Your task to perform on an android device: choose inbox layout in the gmail app Image 0: 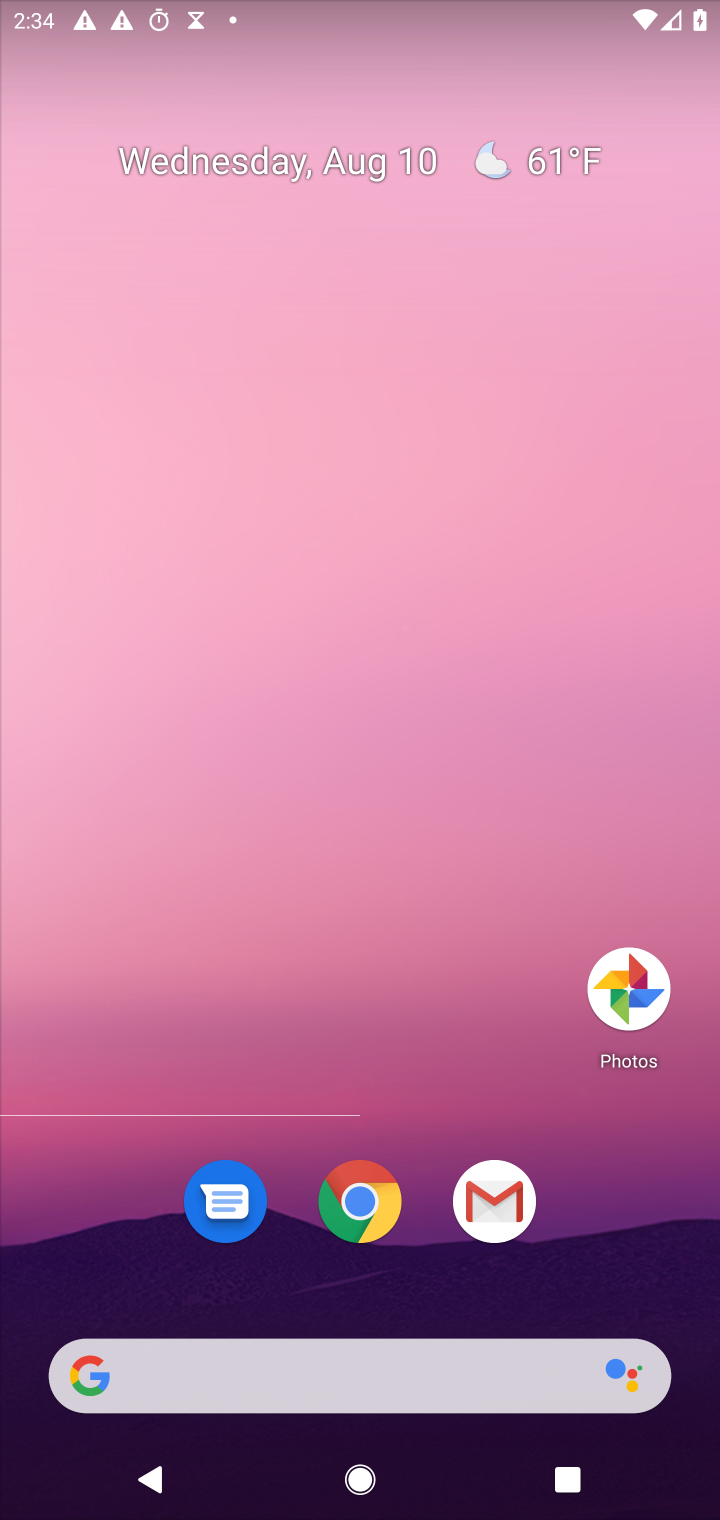
Step 0: press home button
Your task to perform on an android device: choose inbox layout in the gmail app Image 1: 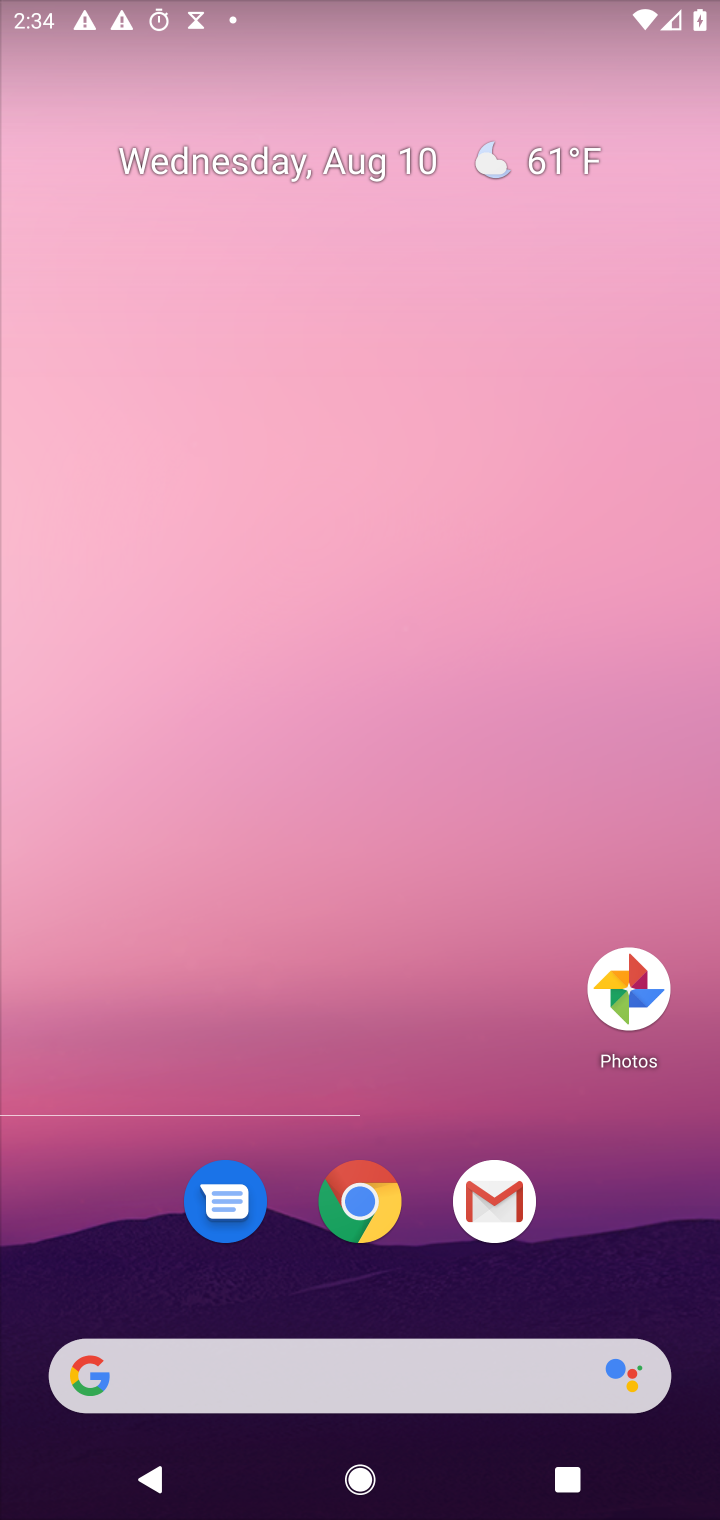
Step 1: click (501, 1199)
Your task to perform on an android device: choose inbox layout in the gmail app Image 2: 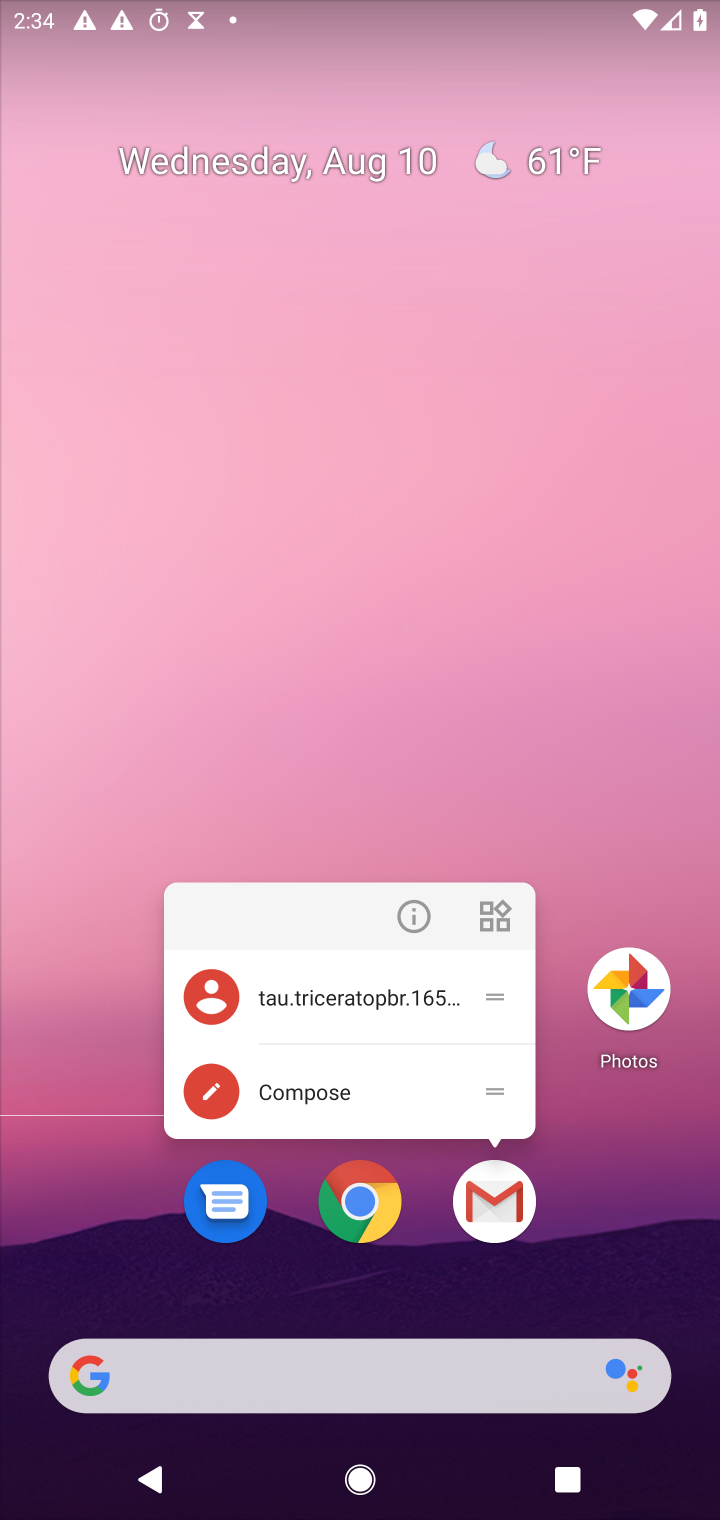
Step 2: click (501, 1199)
Your task to perform on an android device: choose inbox layout in the gmail app Image 3: 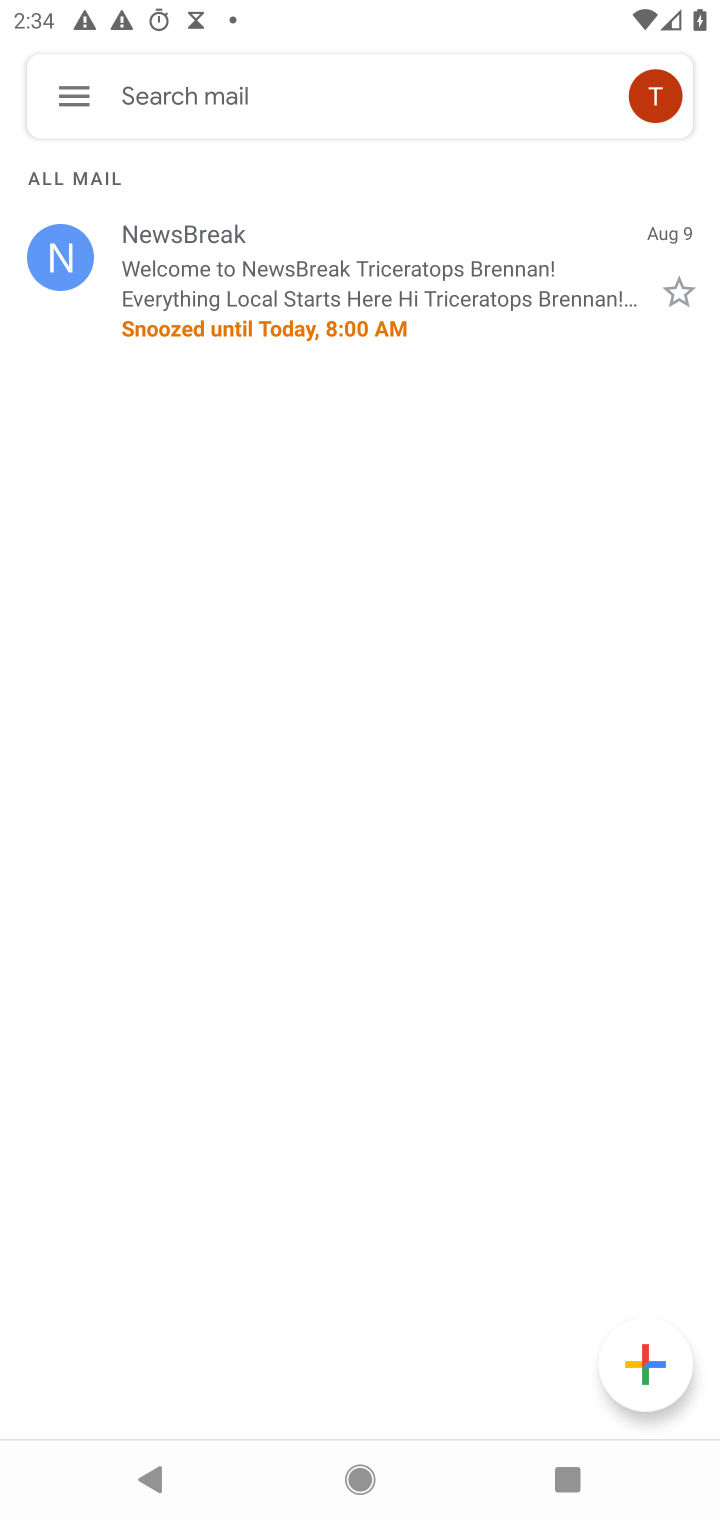
Step 3: click (77, 102)
Your task to perform on an android device: choose inbox layout in the gmail app Image 4: 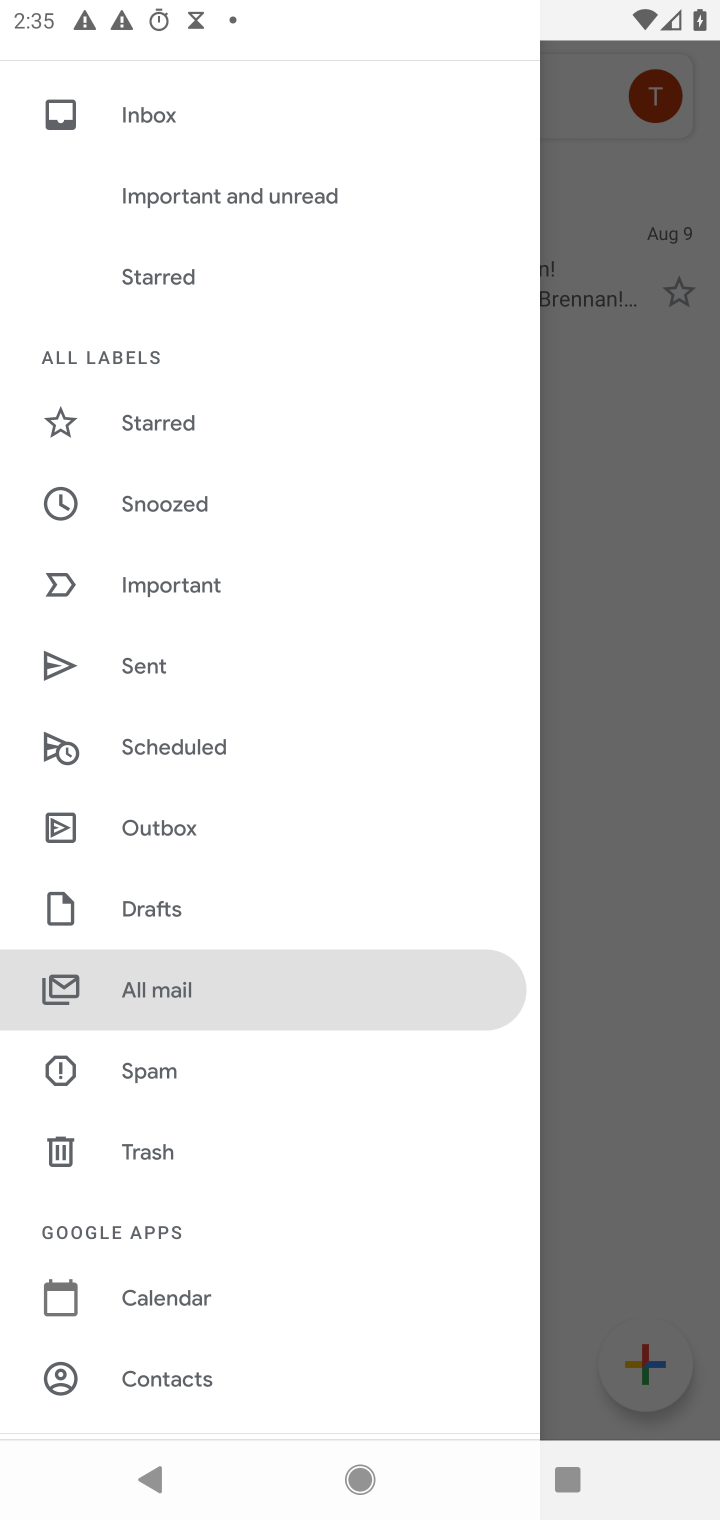
Step 4: drag from (384, 1257) to (277, 482)
Your task to perform on an android device: choose inbox layout in the gmail app Image 5: 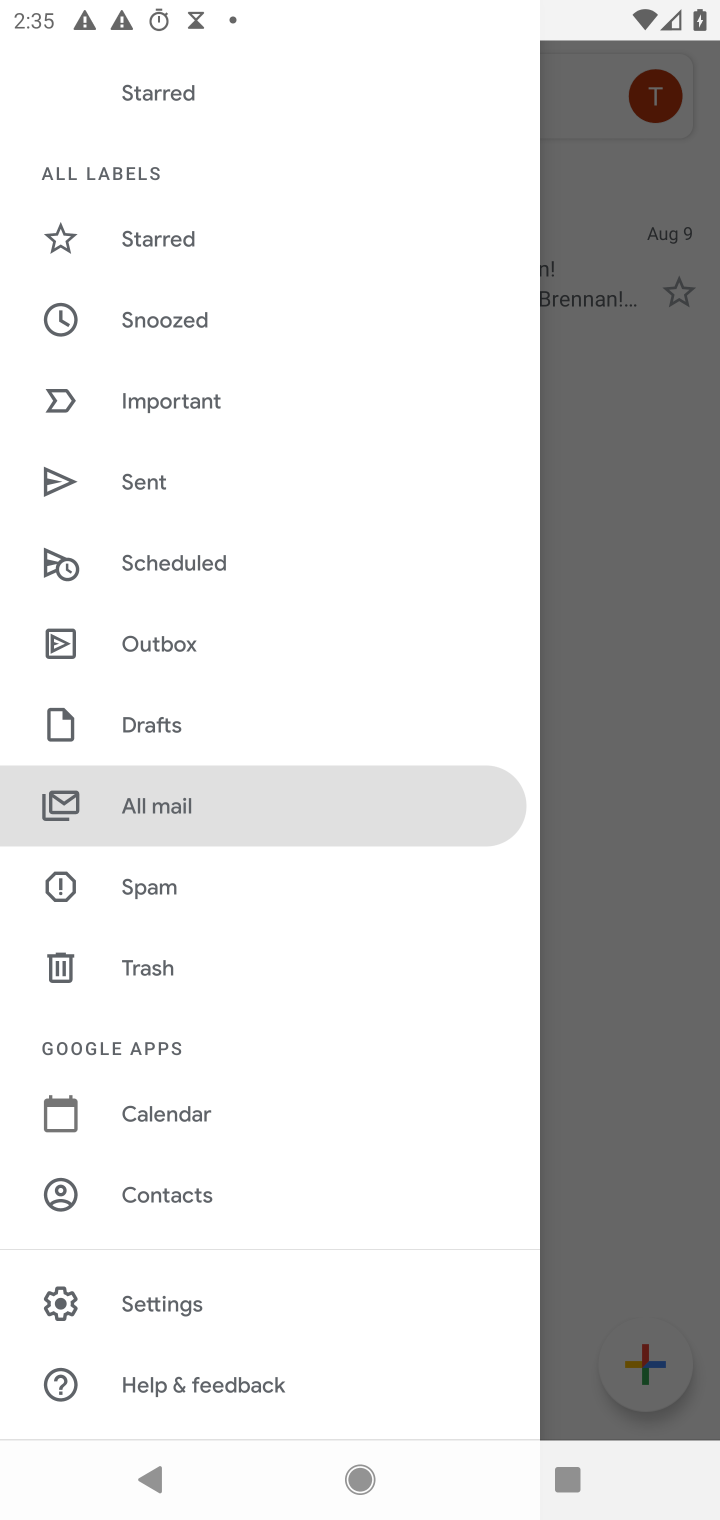
Step 5: click (129, 1293)
Your task to perform on an android device: choose inbox layout in the gmail app Image 6: 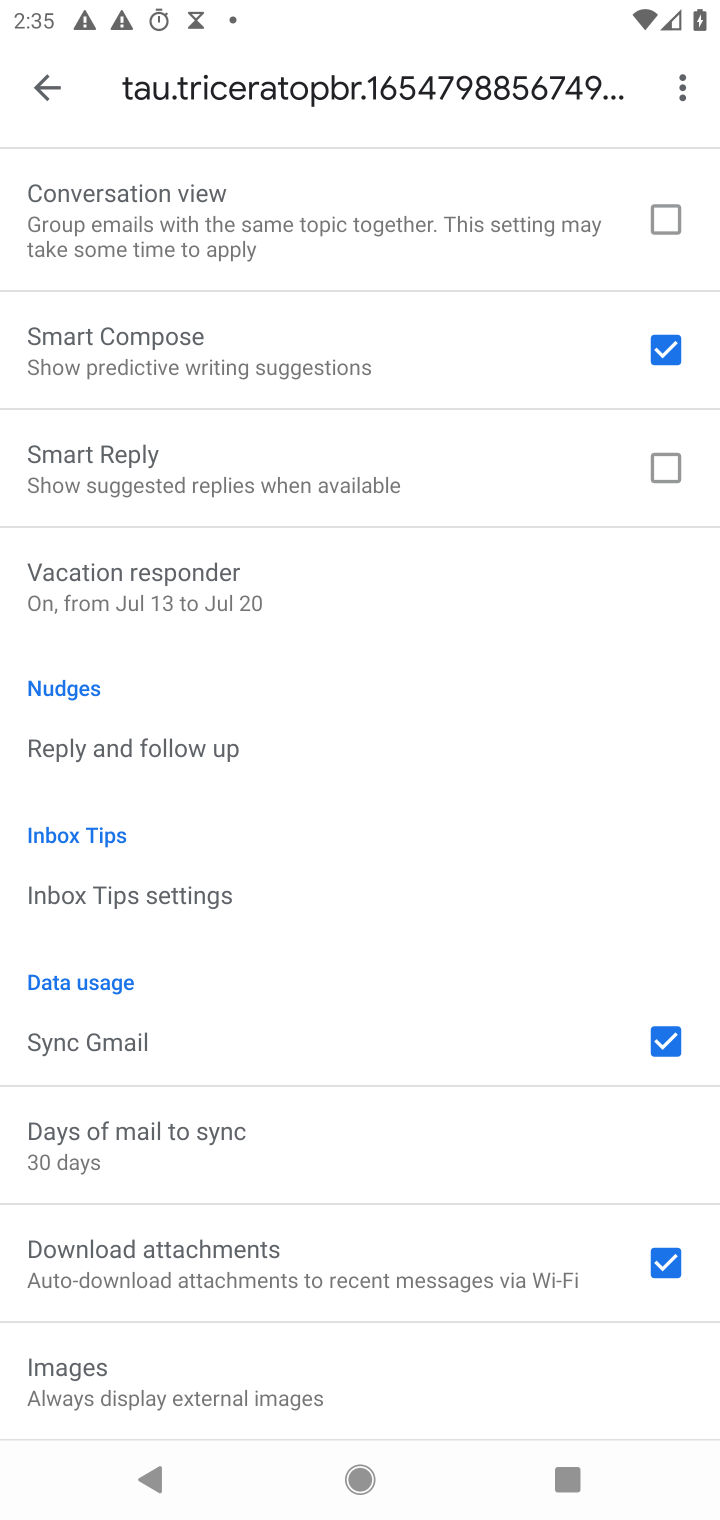
Step 6: drag from (436, 414) to (386, 1512)
Your task to perform on an android device: choose inbox layout in the gmail app Image 7: 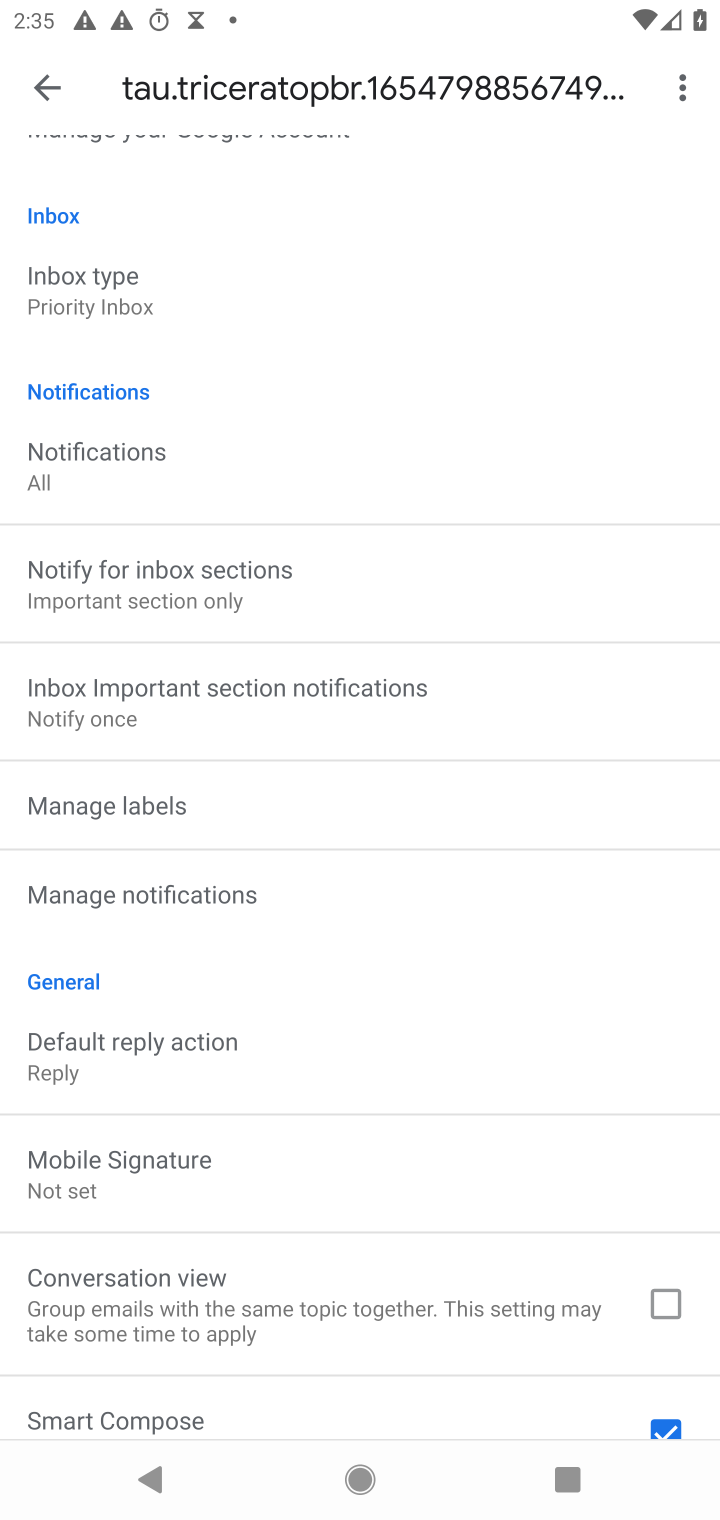
Step 7: click (60, 277)
Your task to perform on an android device: choose inbox layout in the gmail app Image 8: 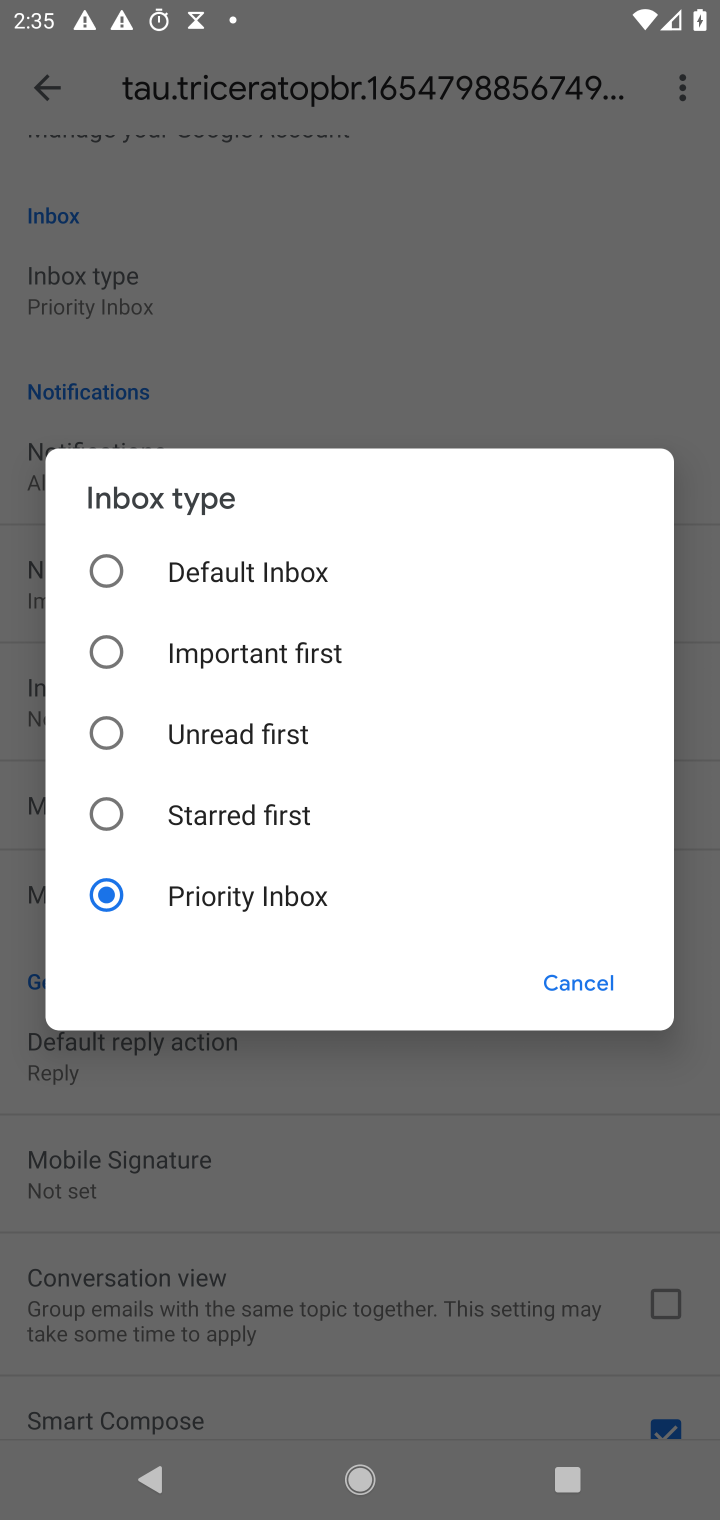
Step 8: click (104, 651)
Your task to perform on an android device: choose inbox layout in the gmail app Image 9: 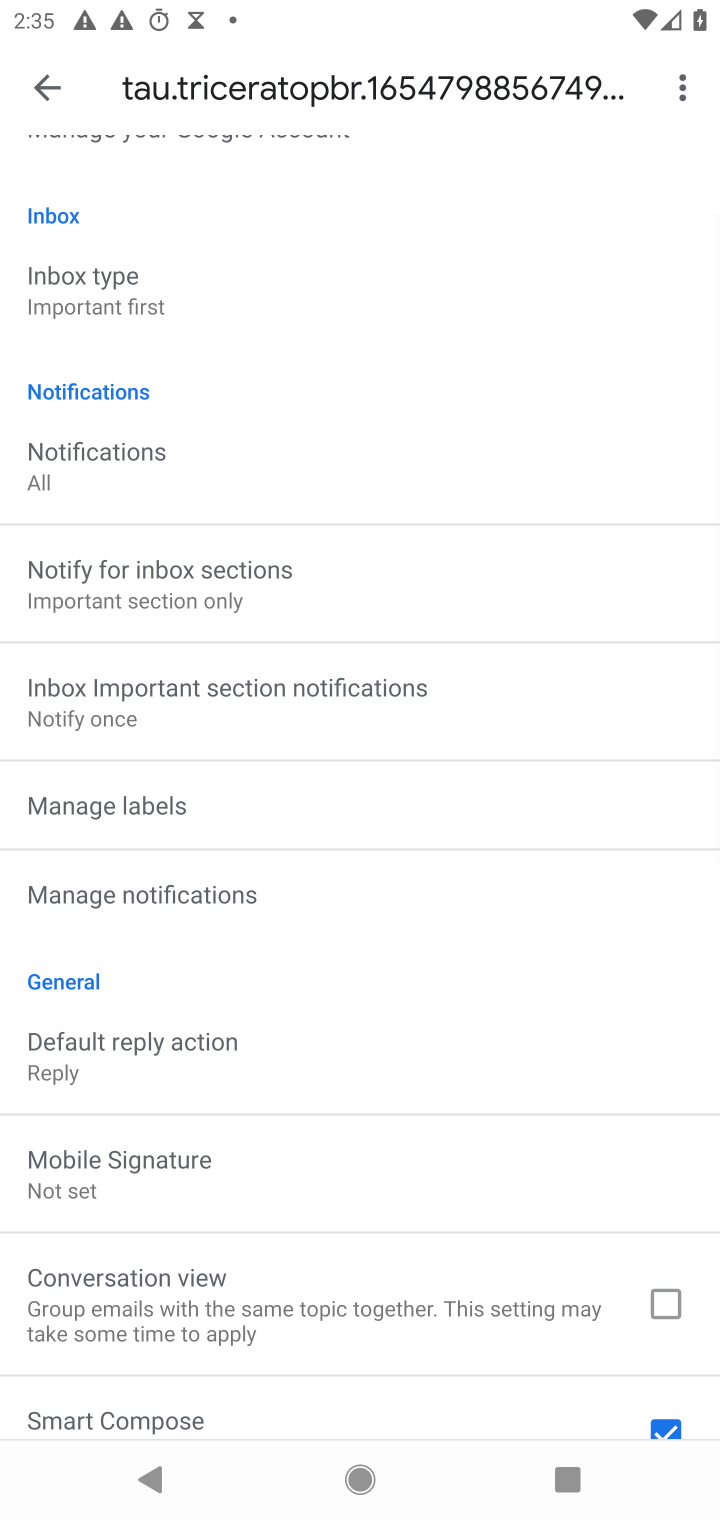
Step 9: task complete